Your task to perform on an android device: turn on javascript in the chrome app Image 0: 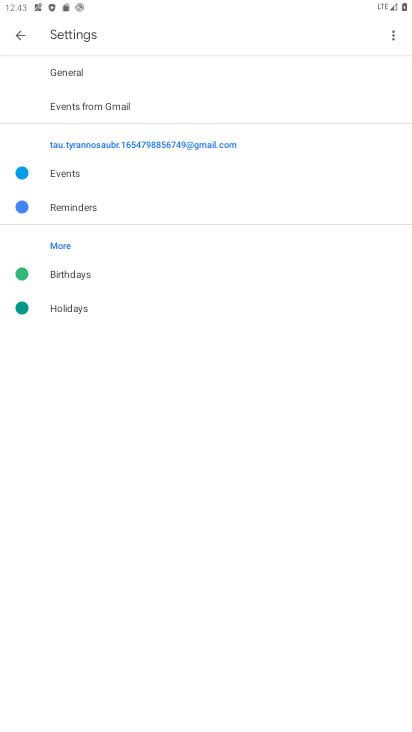
Step 0: press home button
Your task to perform on an android device: turn on javascript in the chrome app Image 1: 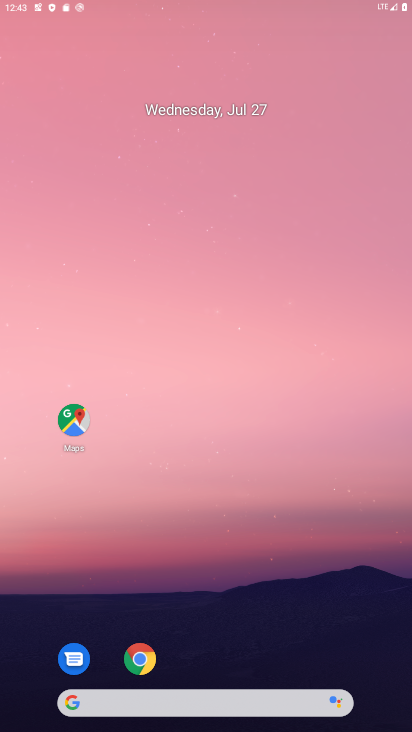
Step 1: drag from (231, 504) to (299, 39)
Your task to perform on an android device: turn on javascript in the chrome app Image 2: 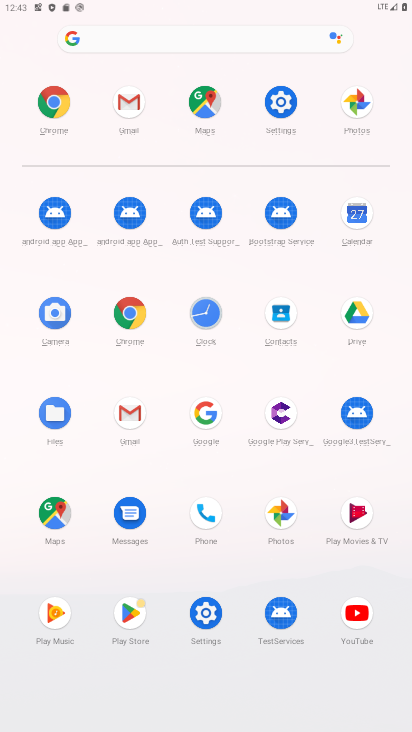
Step 2: click (137, 321)
Your task to perform on an android device: turn on javascript in the chrome app Image 3: 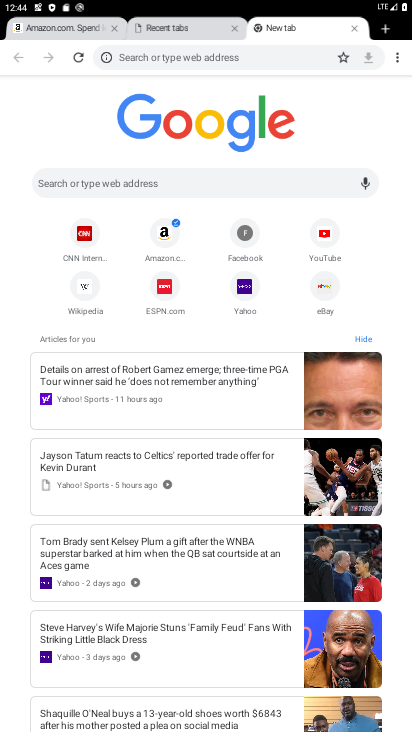
Step 3: click (394, 58)
Your task to perform on an android device: turn on javascript in the chrome app Image 4: 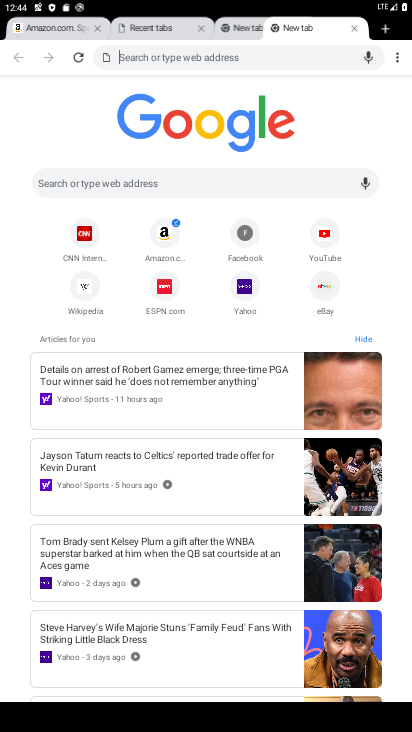
Step 4: click (397, 58)
Your task to perform on an android device: turn on javascript in the chrome app Image 5: 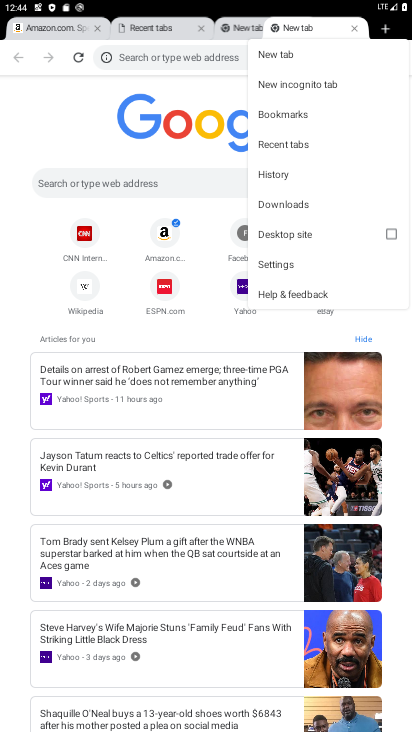
Step 5: click (293, 265)
Your task to perform on an android device: turn on javascript in the chrome app Image 6: 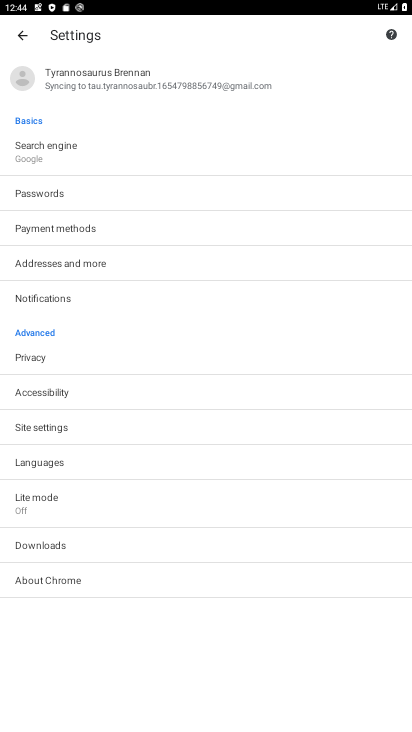
Step 6: click (56, 423)
Your task to perform on an android device: turn on javascript in the chrome app Image 7: 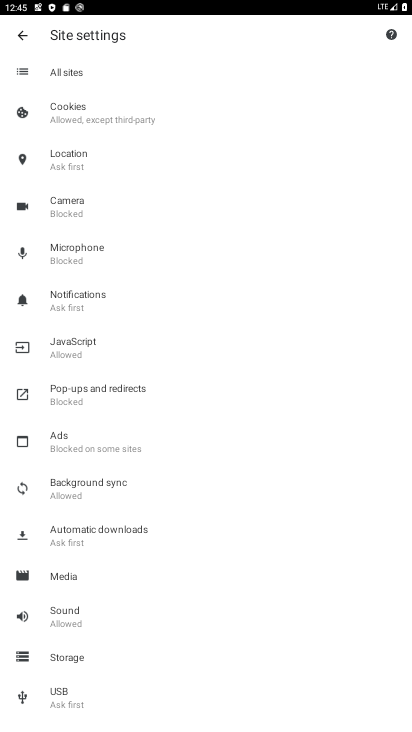
Step 7: click (120, 354)
Your task to perform on an android device: turn on javascript in the chrome app Image 8: 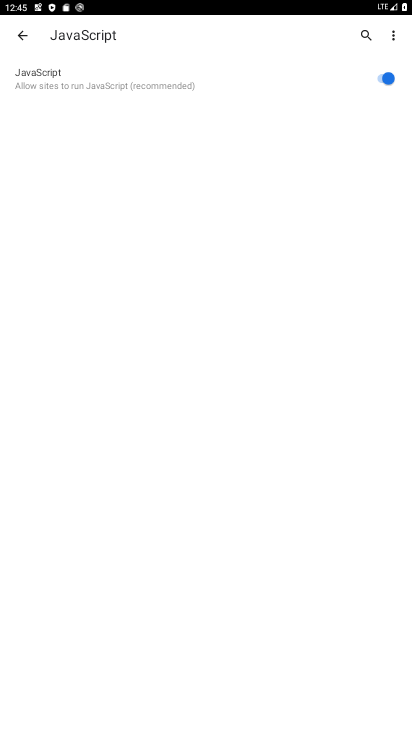
Step 8: task complete